Your task to perform on an android device: Is it going to rain tomorrow? Image 0: 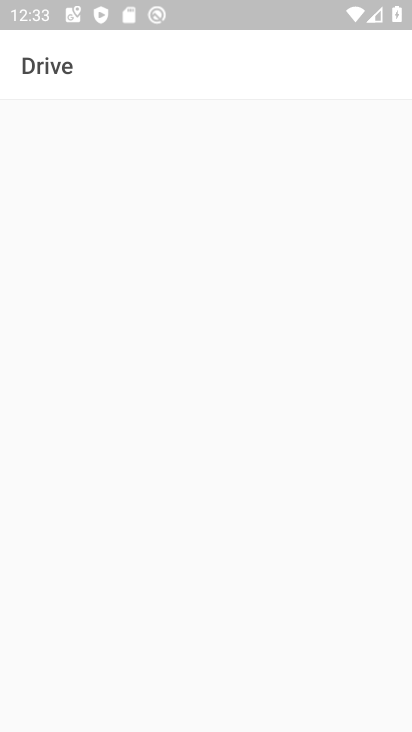
Step 0: press home button
Your task to perform on an android device: Is it going to rain tomorrow? Image 1: 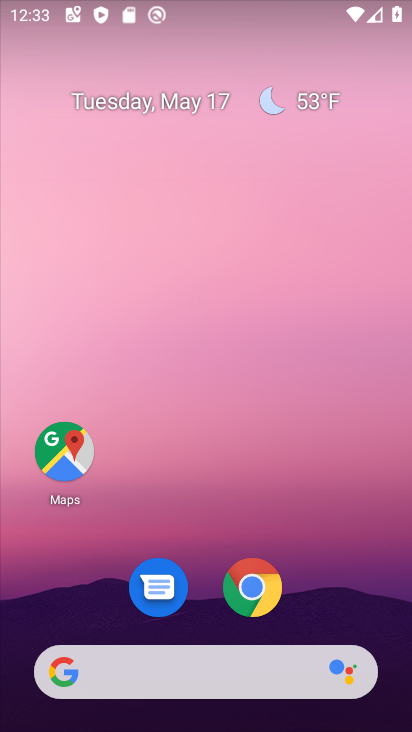
Step 1: click (230, 685)
Your task to perform on an android device: Is it going to rain tomorrow? Image 2: 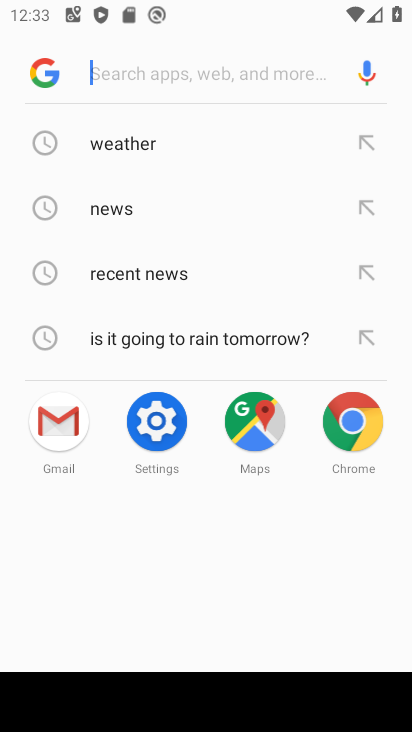
Step 2: click (114, 145)
Your task to perform on an android device: Is it going to rain tomorrow? Image 3: 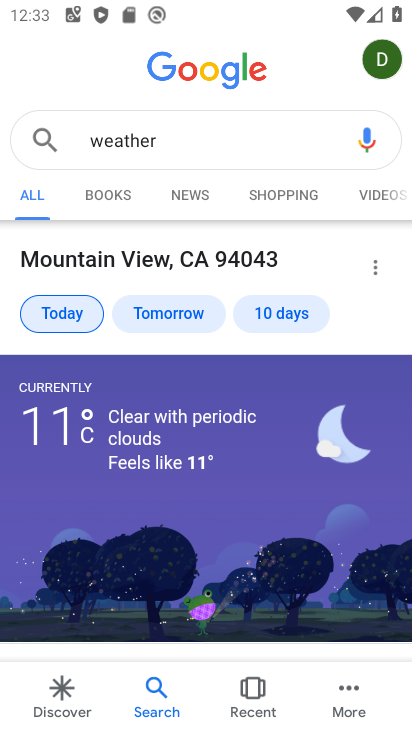
Step 3: click (160, 318)
Your task to perform on an android device: Is it going to rain tomorrow? Image 4: 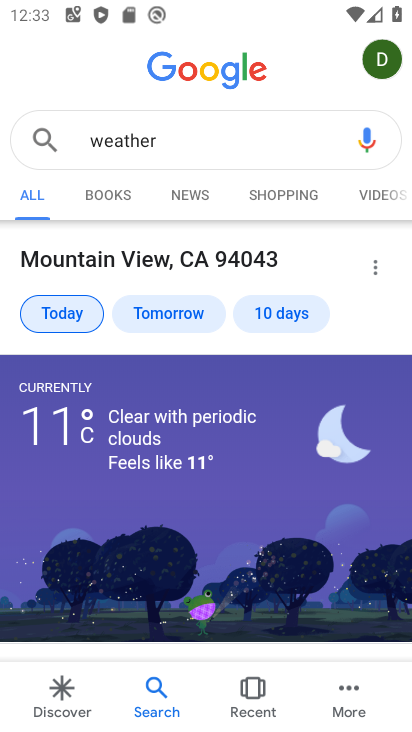
Step 4: click (160, 318)
Your task to perform on an android device: Is it going to rain tomorrow? Image 5: 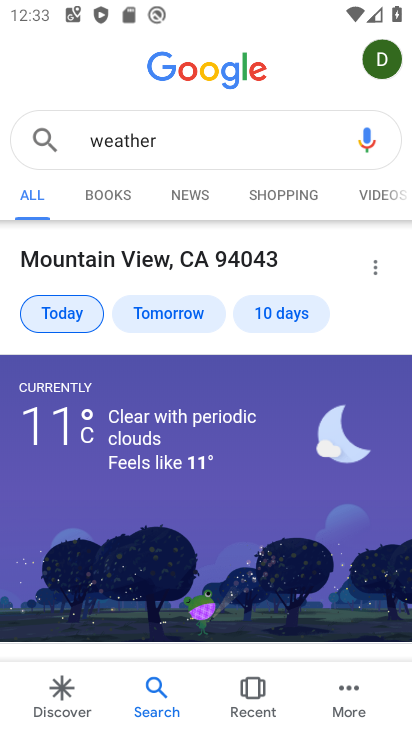
Step 5: click (160, 318)
Your task to perform on an android device: Is it going to rain tomorrow? Image 6: 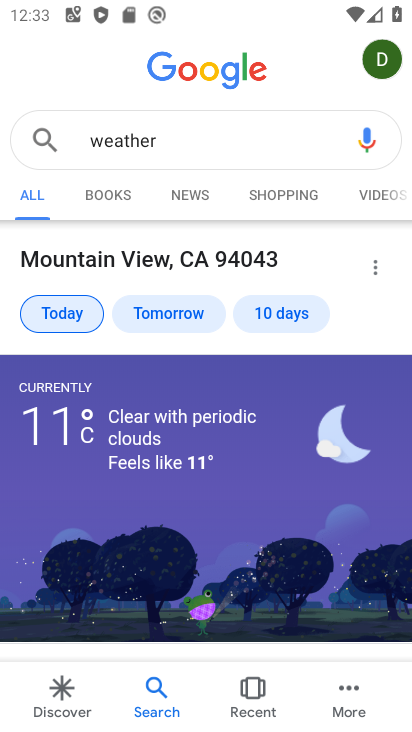
Step 6: task complete